Your task to perform on an android device: Open my contact list Image 0: 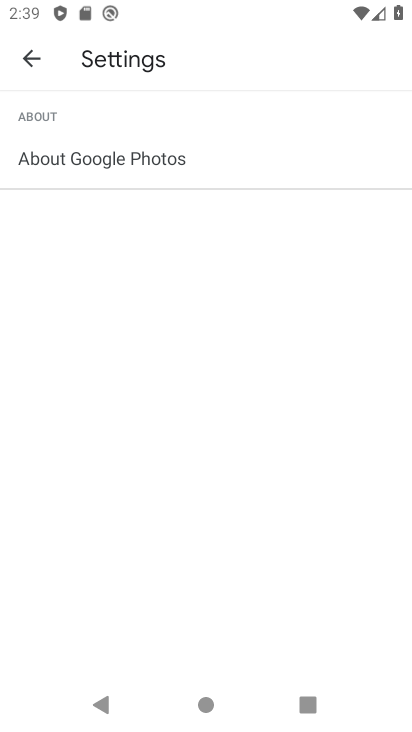
Step 0: click (25, 42)
Your task to perform on an android device: Open my contact list Image 1: 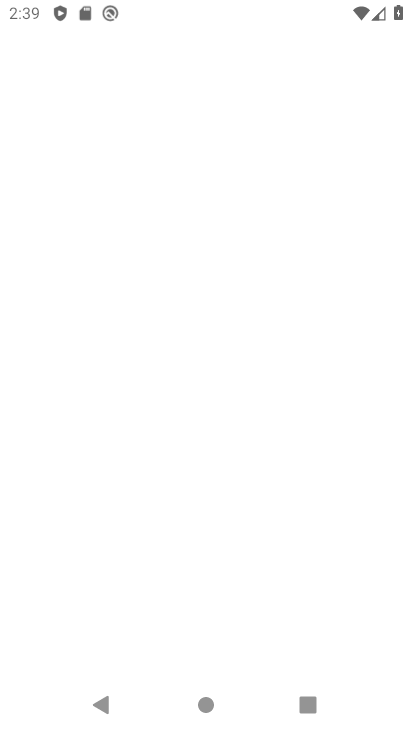
Step 1: click (24, 59)
Your task to perform on an android device: Open my contact list Image 2: 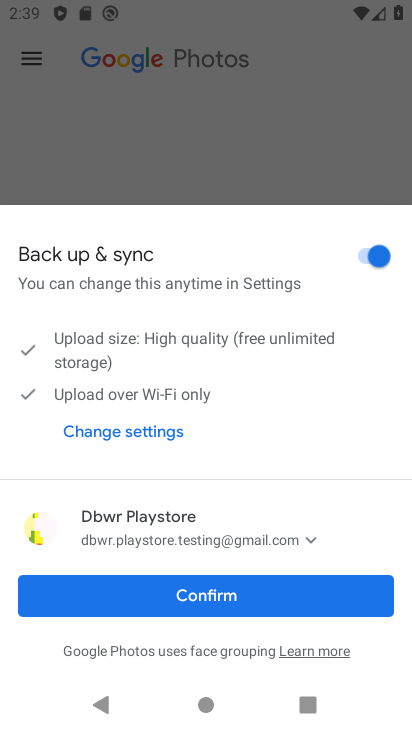
Step 2: click (219, 589)
Your task to perform on an android device: Open my contact list Image 3: 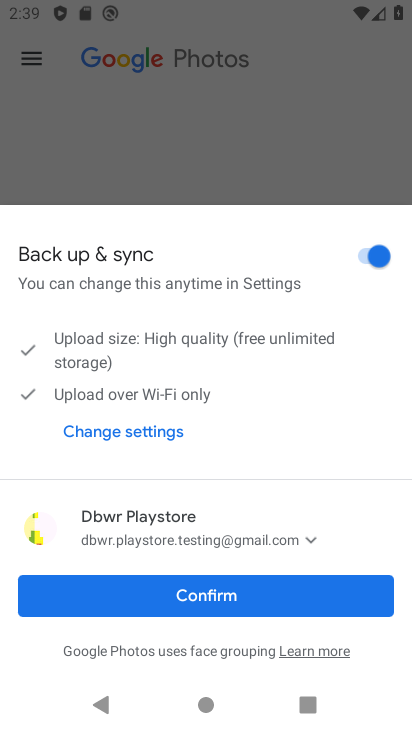
Step 3: click (228, 596)
Your task to perform on an android device: Open my contact list Image 4: 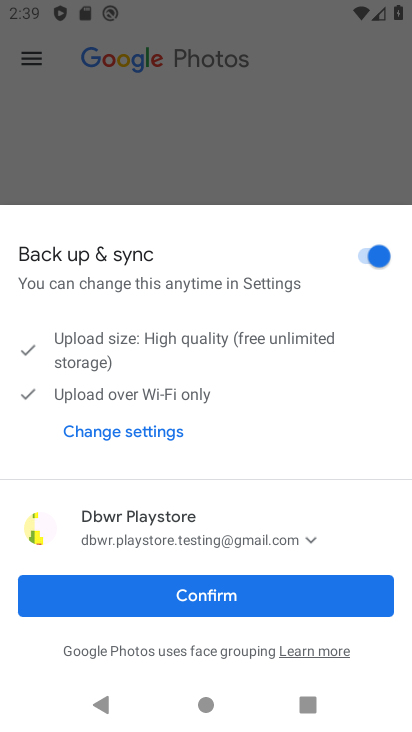
Step 4: click (228, 595)
Your task to perform on an android device: Open my contact list Image 5: 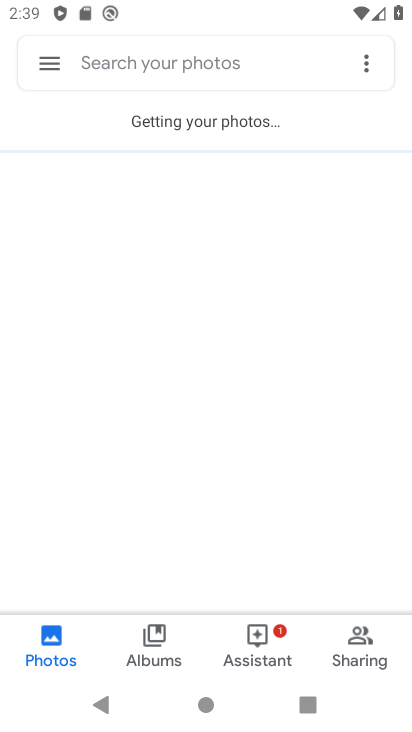
Step 5: press back button
Your task to perform on an android device: Open my contact list Image 6: 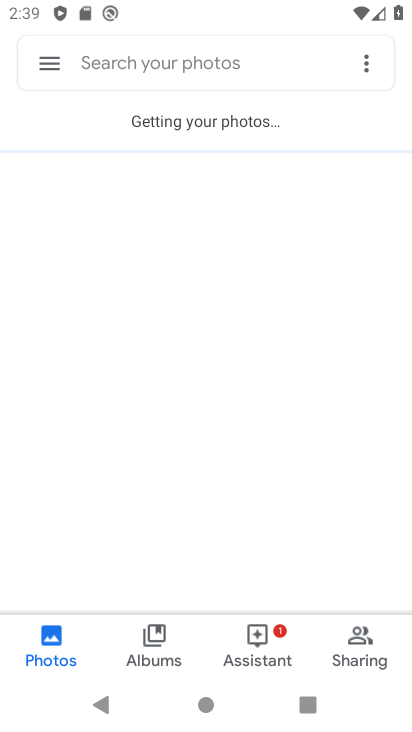
Step 6: press back button
Your task to perform on an android device: Open my contact list Image 7: 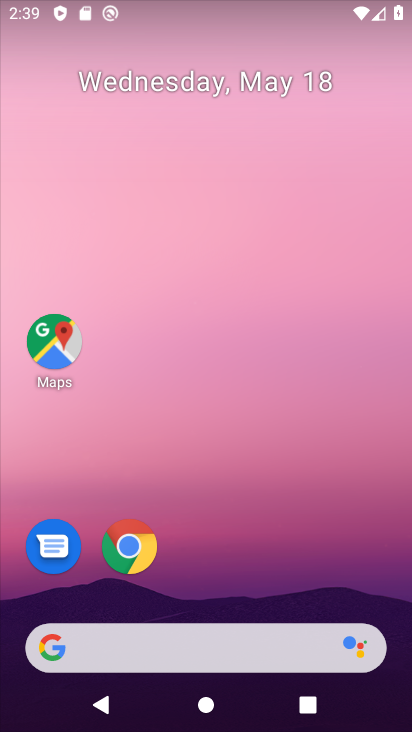
Step 7: drag from (261, 634) to (118, 83)
Your task to perform on an android device: Open my contact list Image 8: 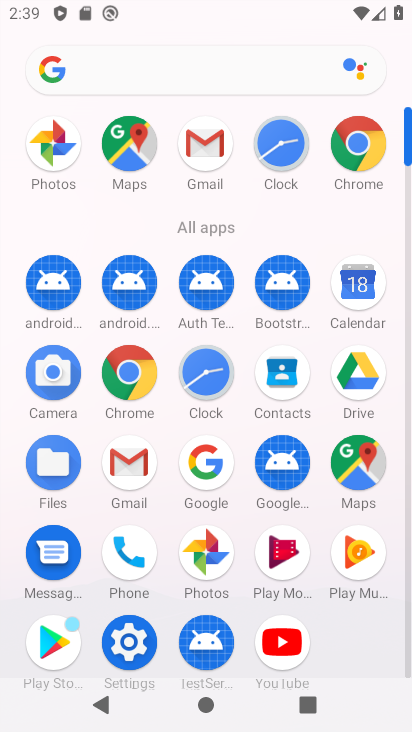
Step 8: click (281, 374)
Your task to perform on an android device: Open my contact list Image 9: 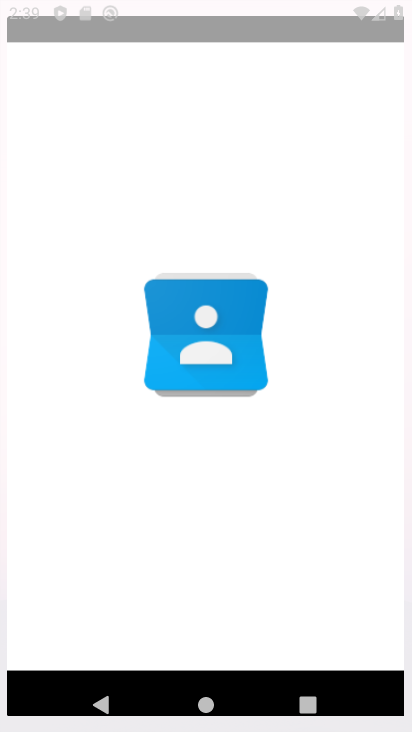
Step 9: click (281, 373)
Your task to perform on an android device: Open my contact list Image 10: 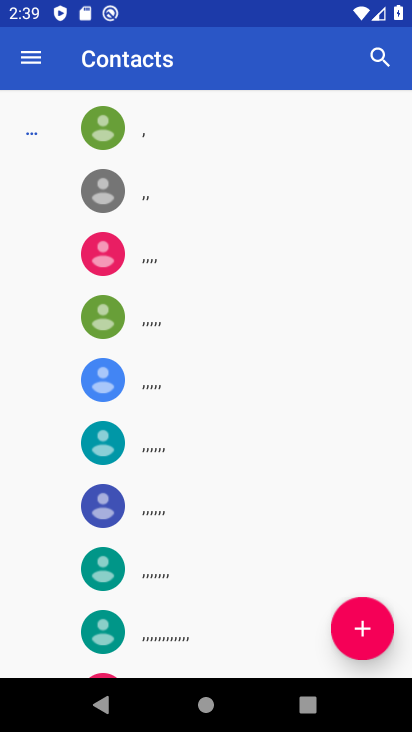
Step 10: task complete